Your task to perform on an android device: turn off priority inbox in the gmail app Image 0: 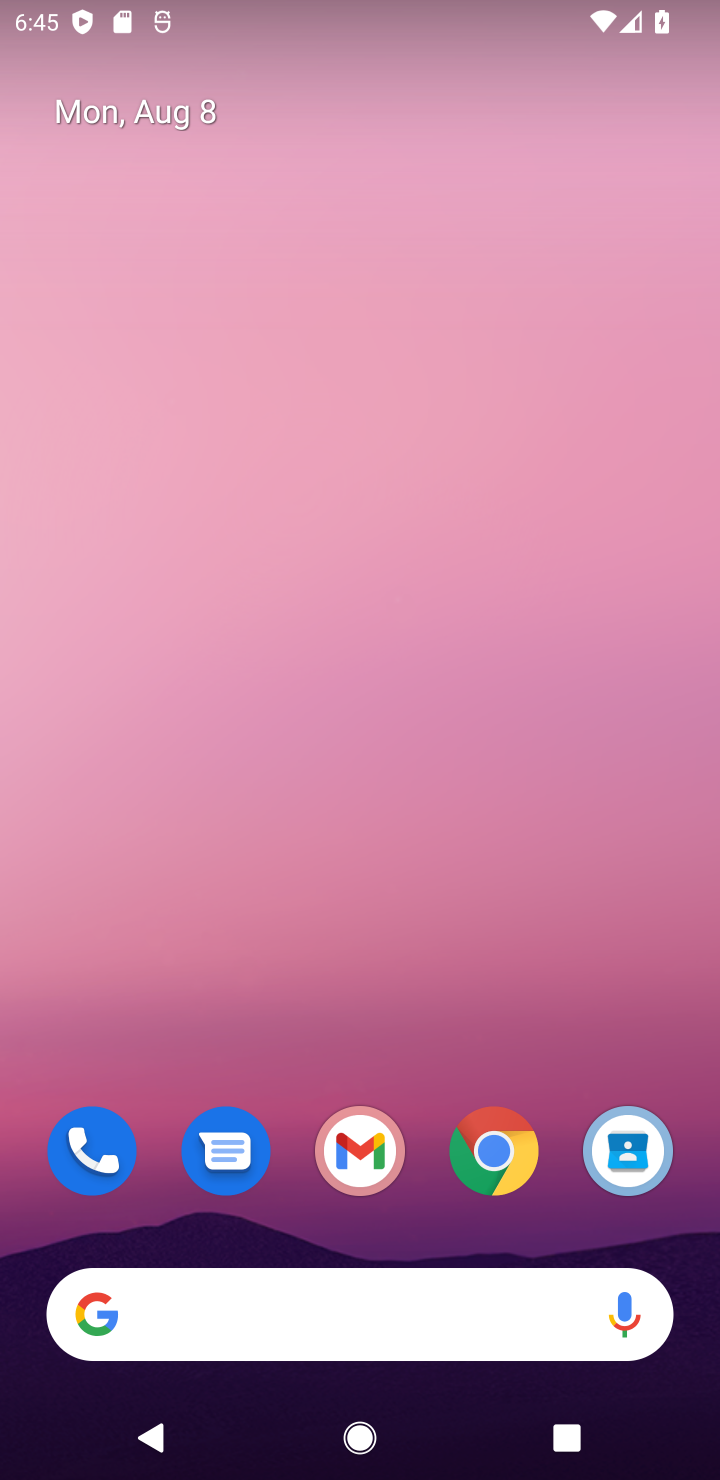
Step 0: click (373, 1135)
Your task to perform on an android device: turn off priority inbox in the gmail app Image 1: 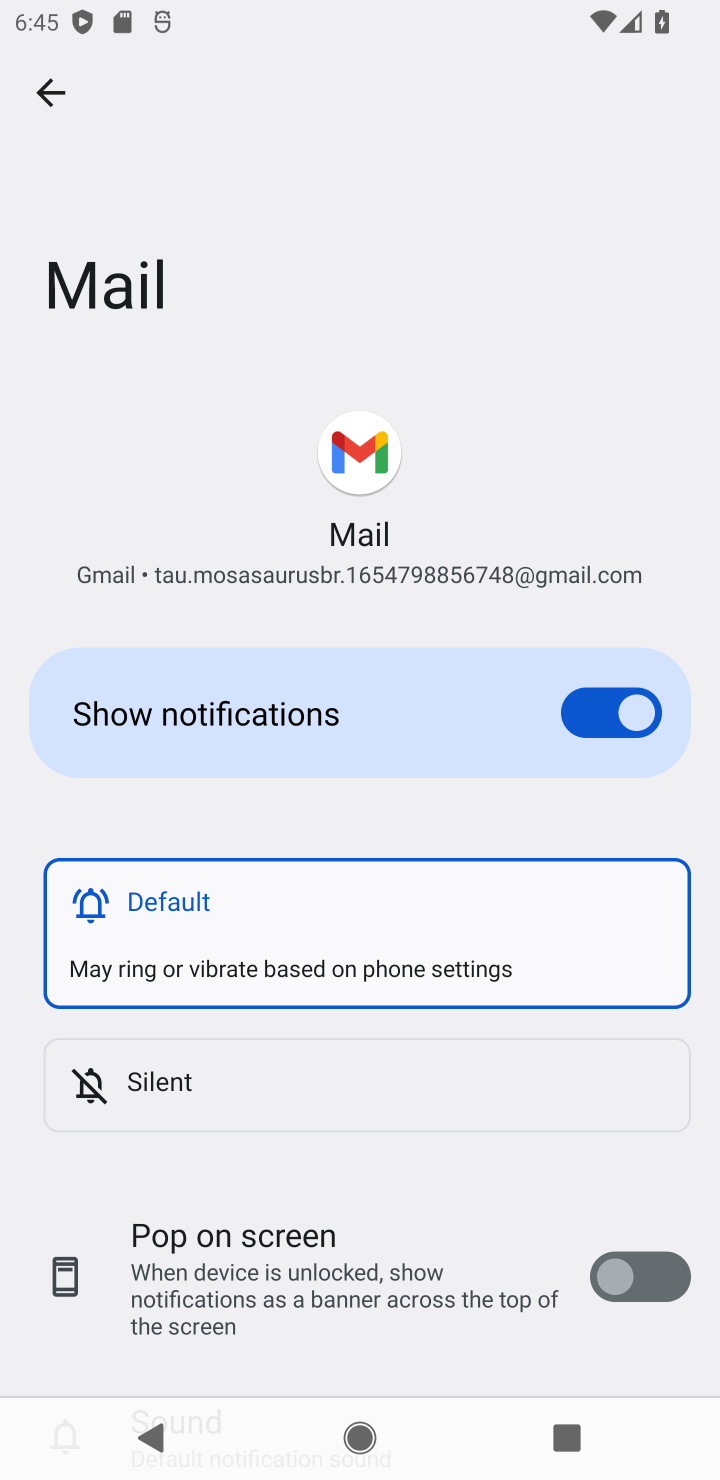
Step 1: click (54, 76)
Your task to perform on an android device: turn off priority inbox in the gmail app Image 2: 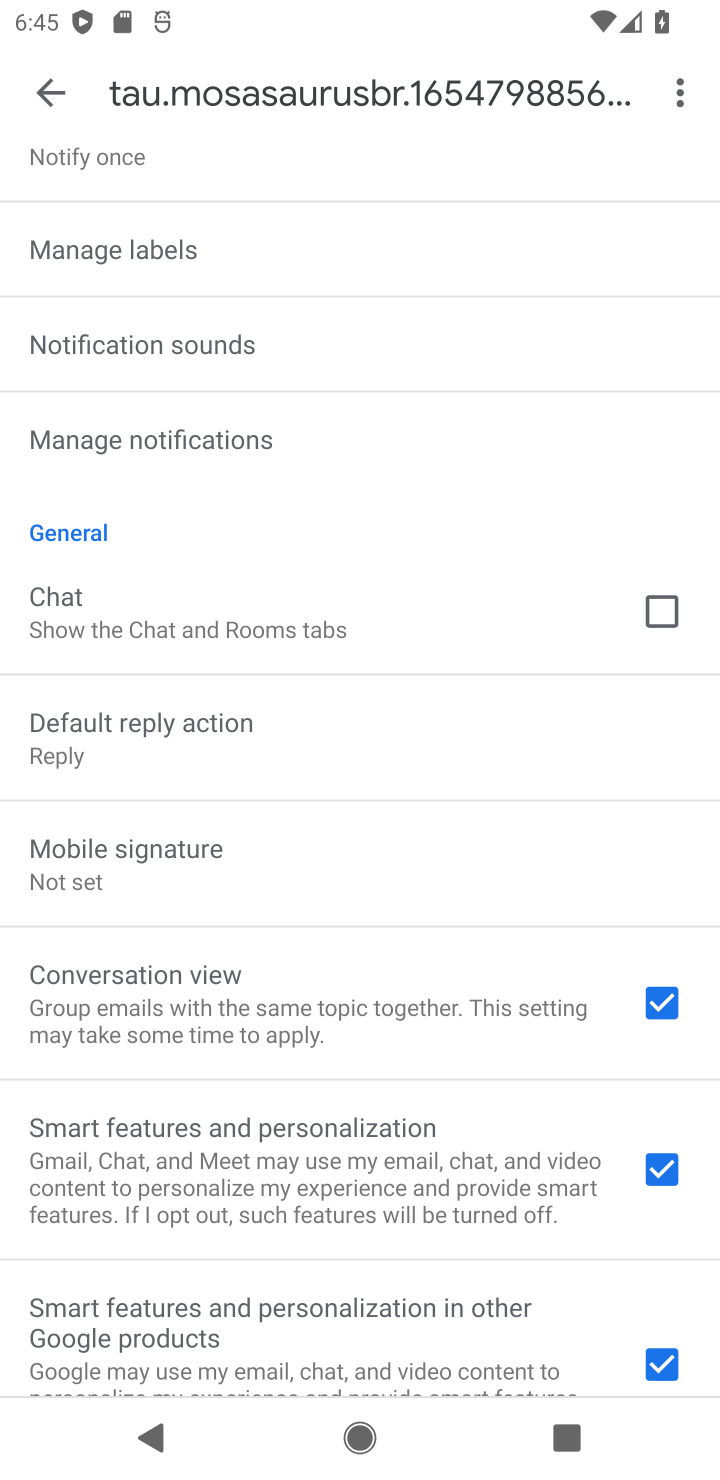
Step 2: drag from (307, 434) to (324, 951)
Your task to perform on an android device: turn off priority inbox in the gmail app Image 3: 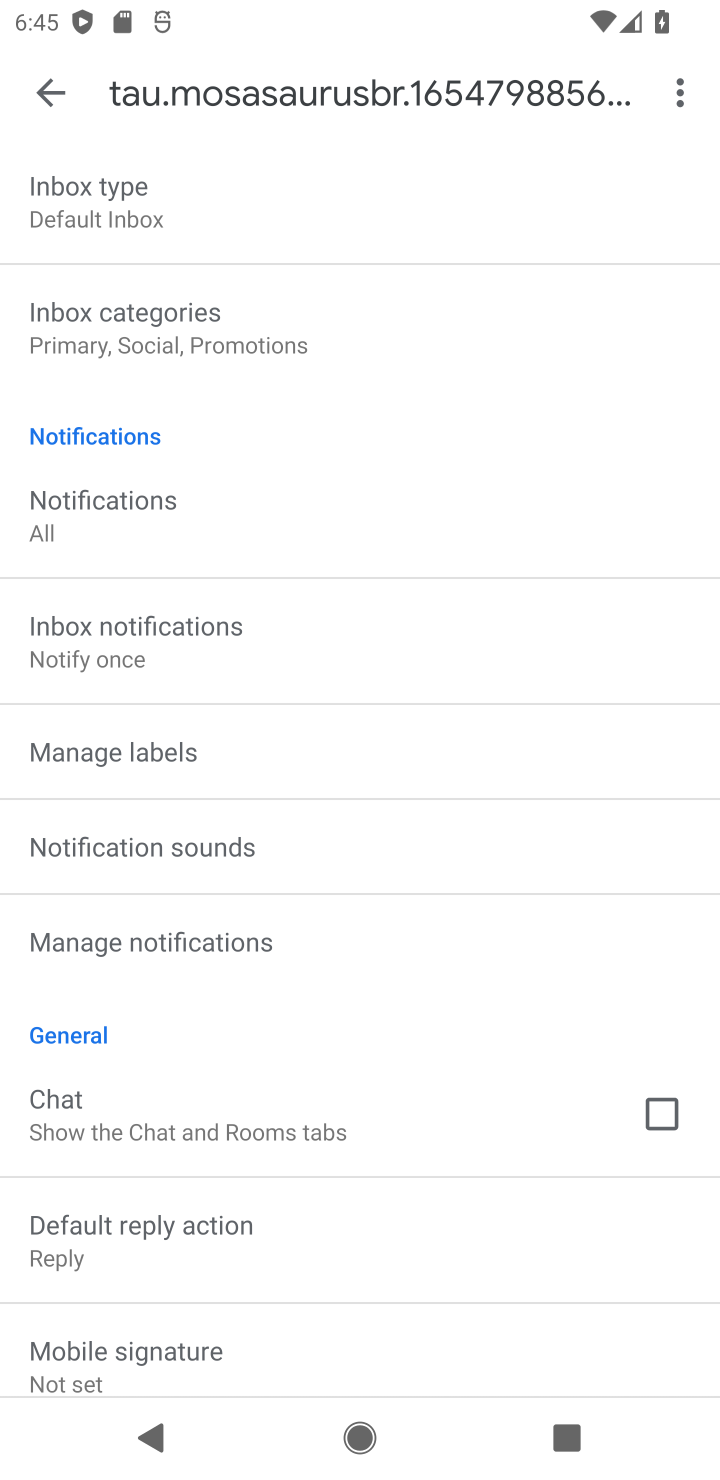
Step 3: click (218, 213)
Your task to perform on an android device: turn off priority inbox in the gmail app Image 4: 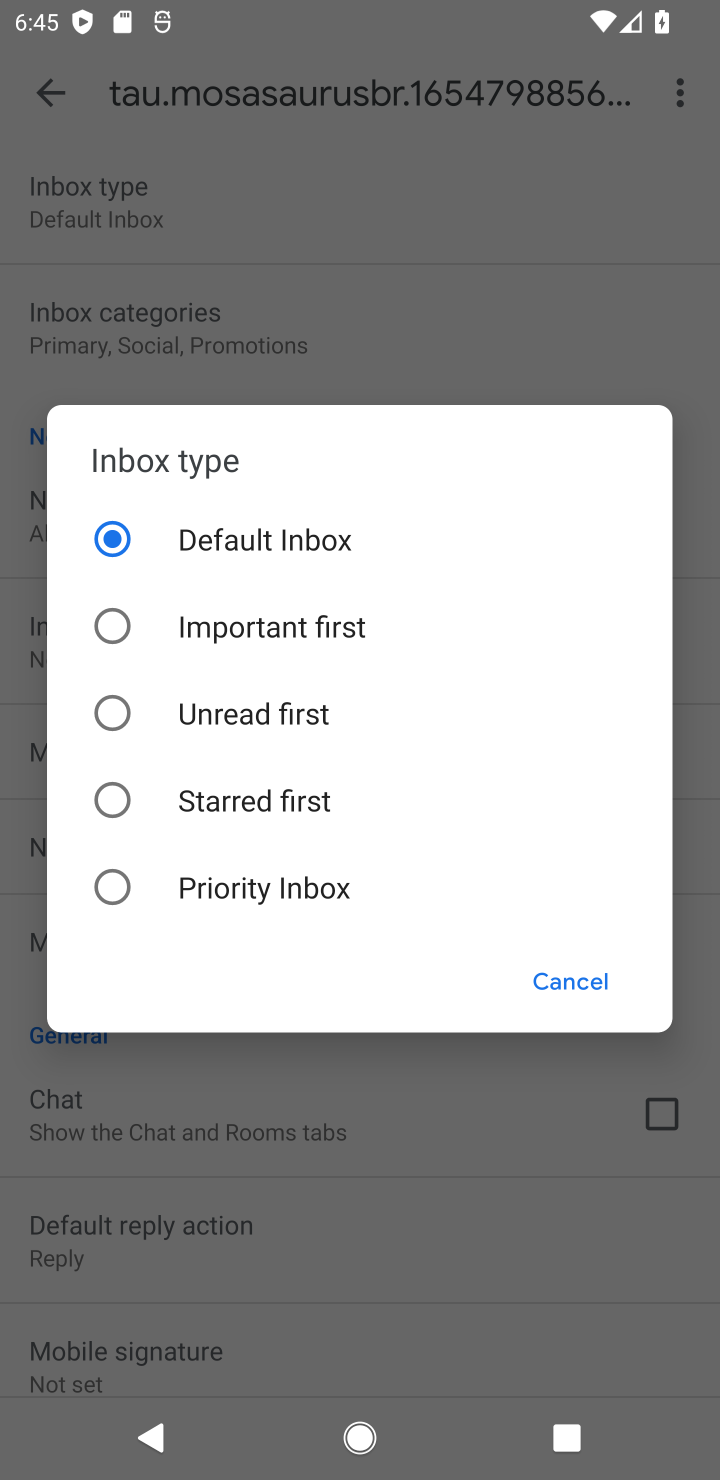
Step 4: click (219, 535)
Your task to perform on an android device: turn off priority inbox in the gmail app Image 5: 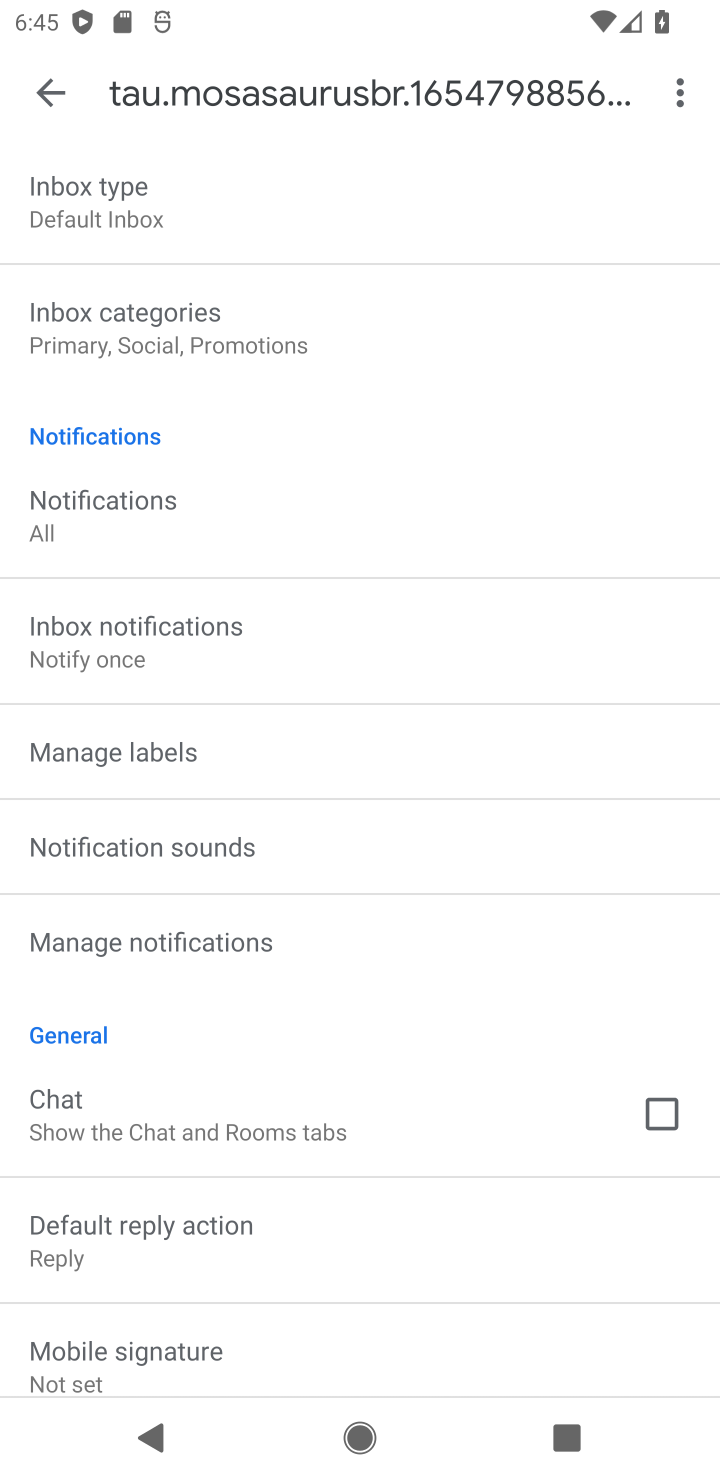
Step 5: task complete